Your task to perform on an android device: Go to sound settings Image 0: 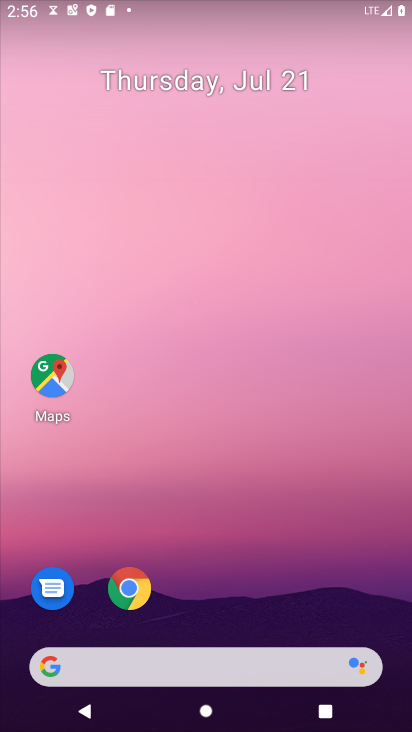
Step 0: drag from (203, 617) to (247, 171)
Your task to perform on an android device: Go to sound settings Image 1: 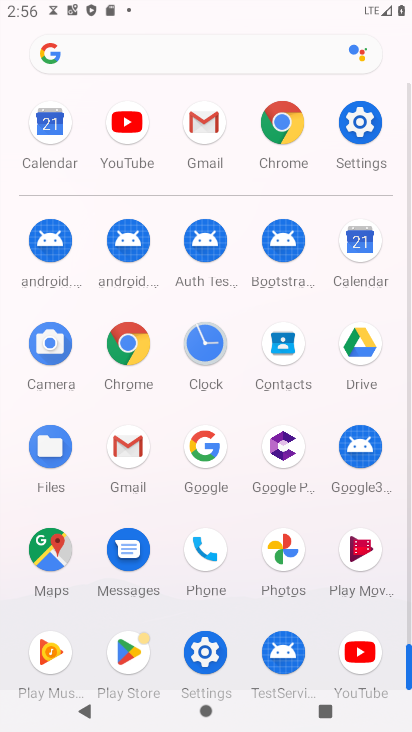
Step 1: click (356, 122)
Your task to perform on an android device: Go to sound settings Image 2: 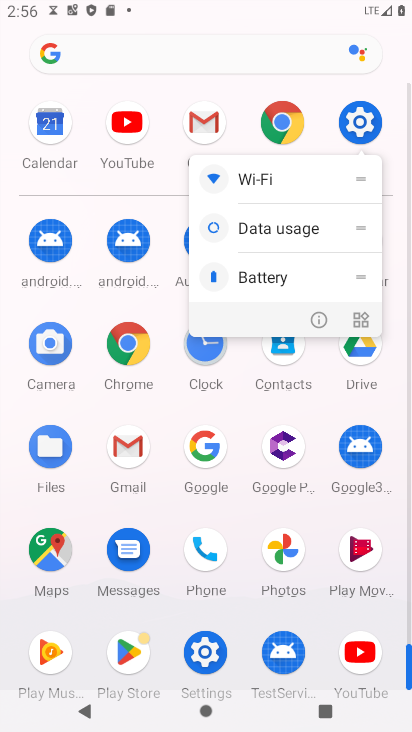
Step 2: click (320, 317)
Your task to perform on an android device: Go to sound settings Image 3: 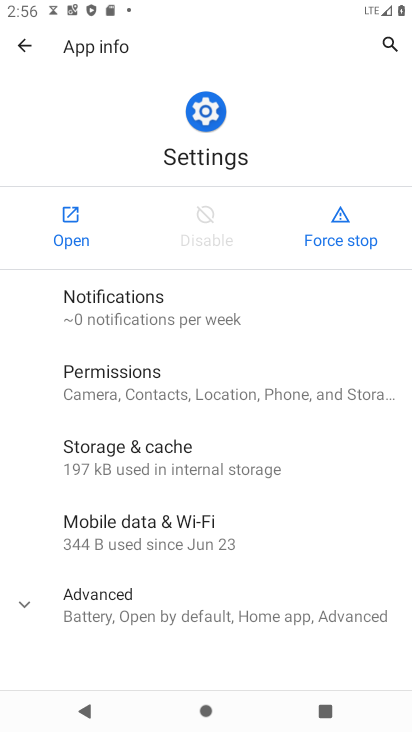
Step 3: click (76, 211)
Your task to perform on an android device: Go to sound settings Image 4: 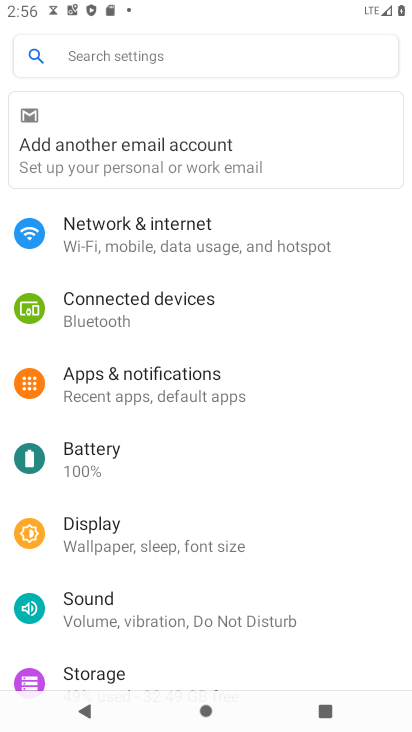
Step 4: drag from (294, 647) to (257, 270)
Your task to perform on an android device: Go to sound settings Image 5: 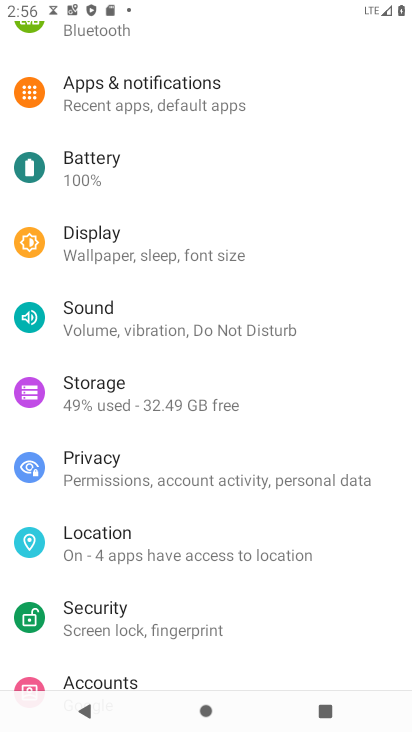
Step 5: drag from (170, 283) to (385, 722)
Your task to perform on an android device: Go to sound settings Image 6: 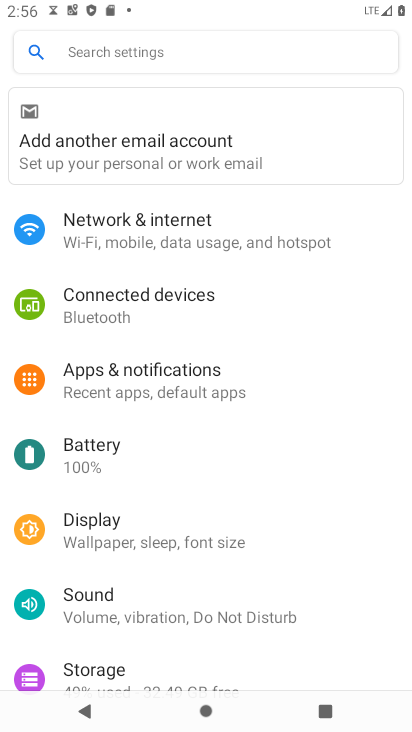
Step 6: drag from (208, 483) to (275, 195)
Your task to perform on an android device: Go to sound settings Image 7: 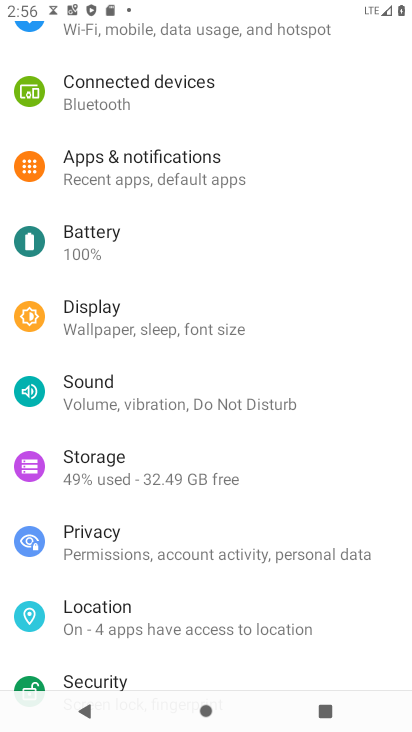
Step 7: drag from (233, 198) to (379, 324)
Your task to perform on an android device: Go to sound settings Image 8: 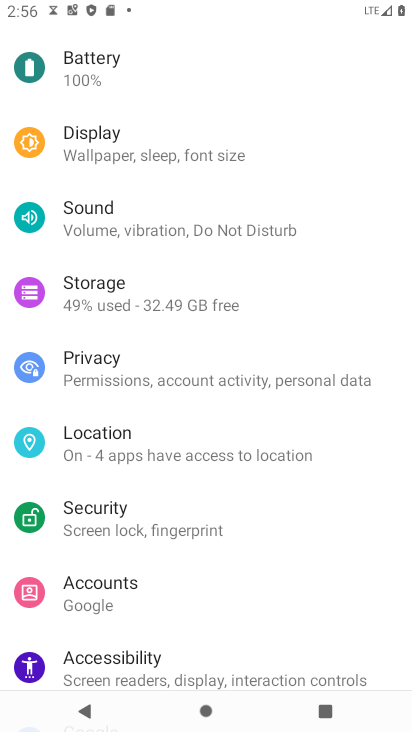
Step 8: drag from (213, 229) to (280, 659)
Your task to perform on an android device: Go to sound settings Image 9: 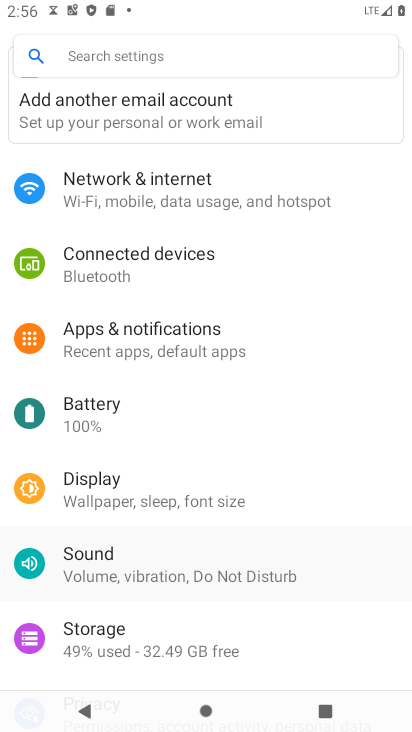
Step 9: drag from (224, 578) to (250, 237)
Your task to perform on an android device: Go to sound settings Image 10: 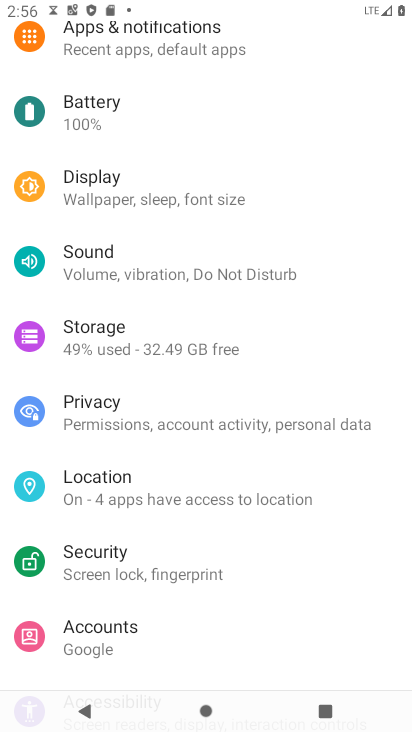
Step 10: drag from (231, 188) to (299, 671)
Your task to perform on an android device: Go to sound settings Image 11: 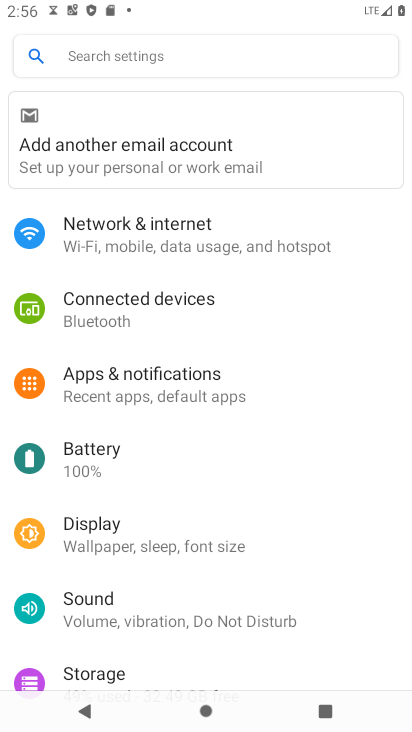
Step 11: drag from (138, 631) to (191, 277)
Your task to perform on an android device: Go to sound settings Image 12: 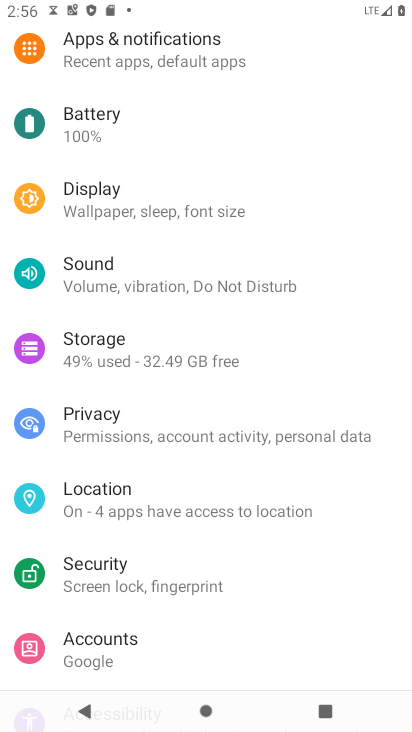
Step 12: click (166, 265)
Your task to perform on an android device: Go to sound settings Image 13: 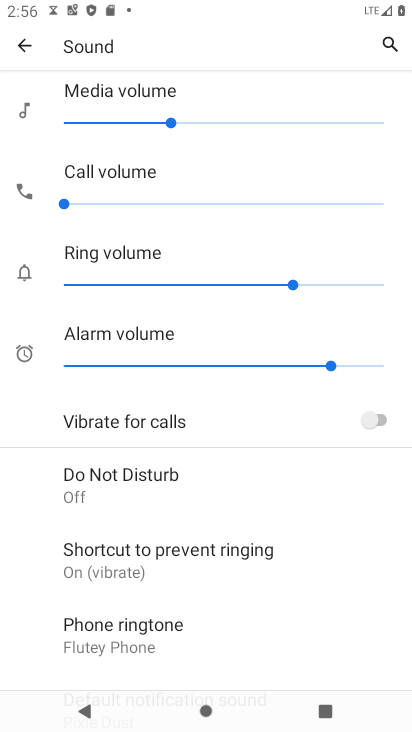
Step 13: task complete